Your task to perform on an android device: Play the last video I watched on Youtube Image 0: 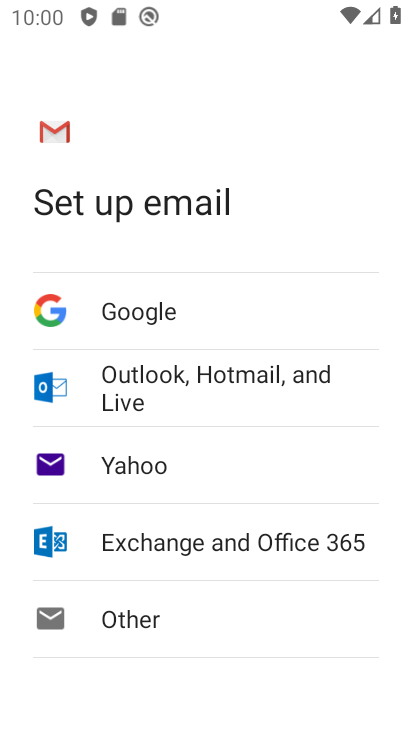
Step 0: task complete